Your task to perform on an android device: Go to Yahoo.com Image 0: 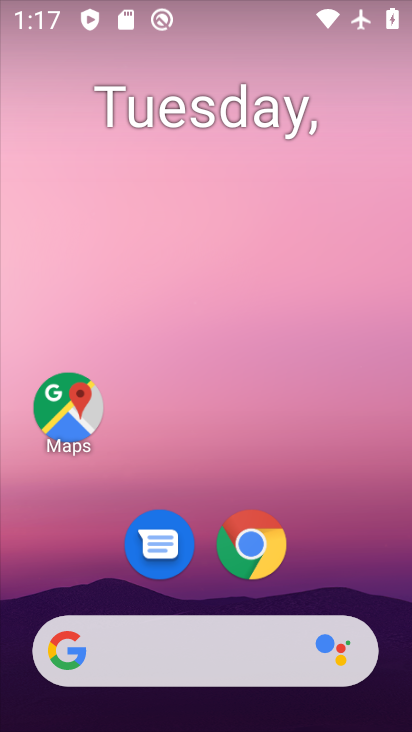
Step 0: click (255, 544)
Your task to perform on an android device: Go to Yahoo.com Image 1: 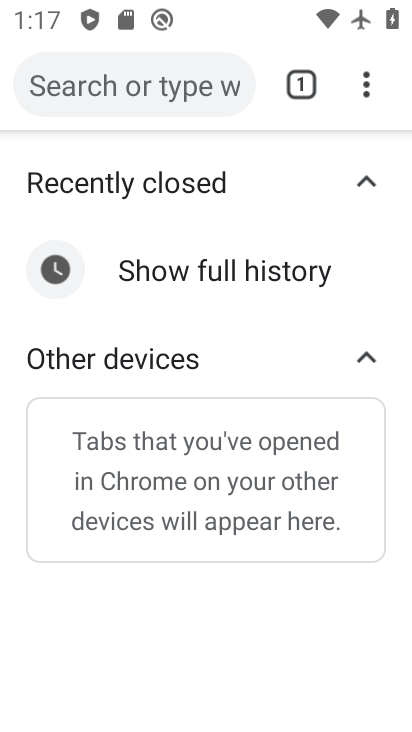
Step 1: click (146, 84)
Your task to perform on an android device: Go to Yahoo.com Image 2: 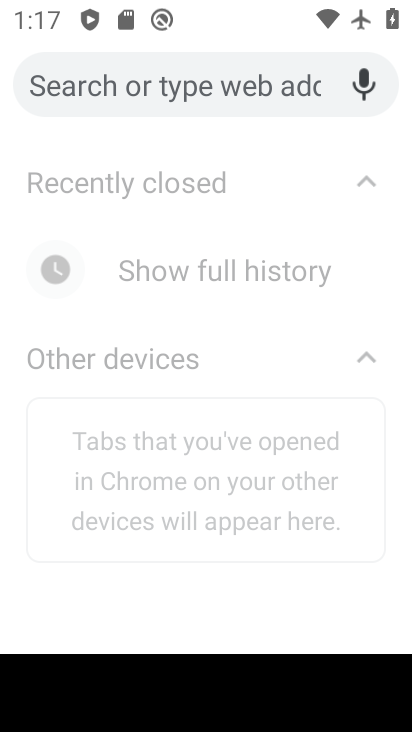
Step 2: type "yahoo.com"
Your task to perform on an android device: Go to Yahoo.com Image 3: 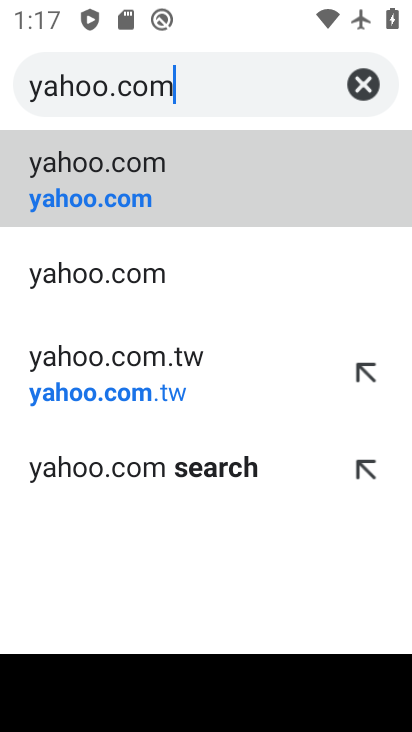
Step 3: click (94, 164)
Your task to perform on an android device: Go to Yahoo.com Image 4: 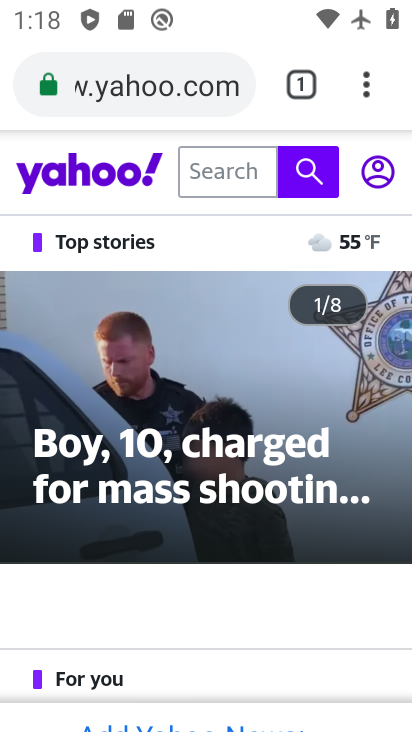
Step 4: task complete